Your task to perform on an android device: Do I have any events this weekend? Image 0: 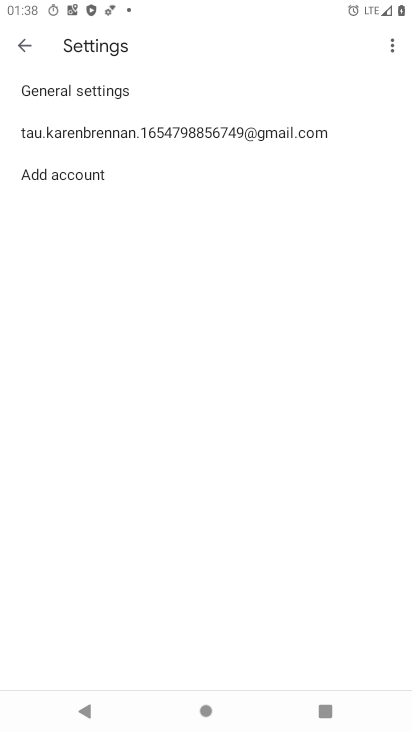
Step 0: press home button
Your task to perform on an android device: Do I have any events this weekend? Image 1: 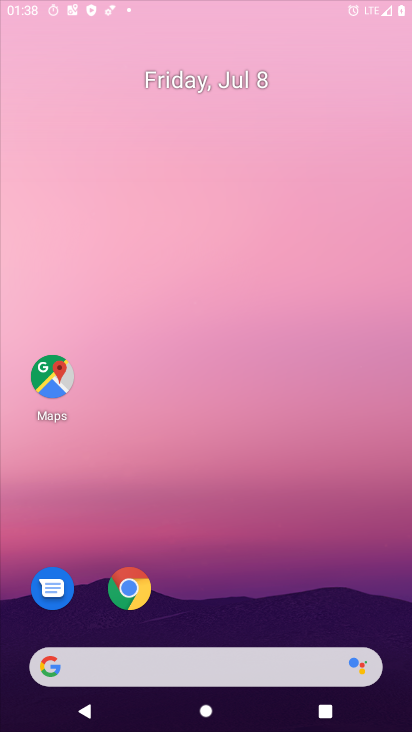
Step 1: drag from (218, 644) to (225, 320)
Your task to perform on an android device: Do I have any events this weekend? Image 2: 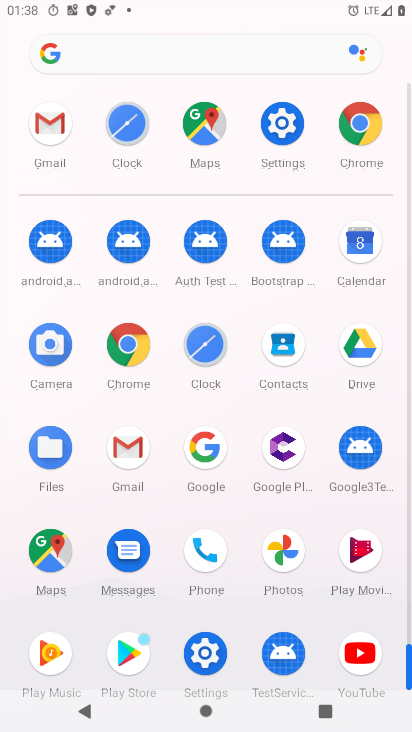
Step 2: click (371, 257)
Your task to perform on an android device: Do I have any events this weekend? Image 3: 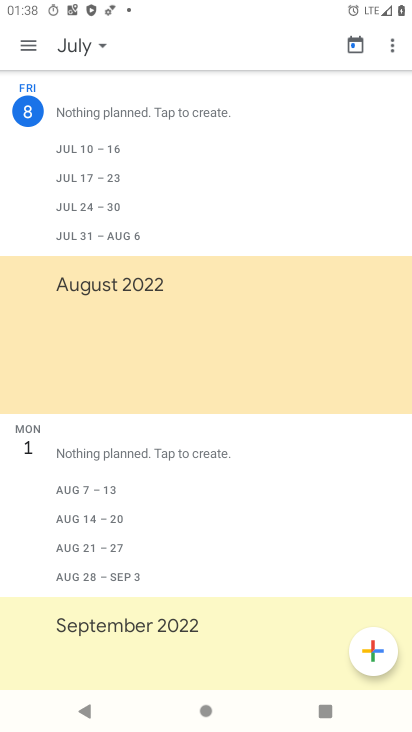
Step 3: click (86, 43)
Your task to perform on an android device: Do I have any events this weekend? Image 4: 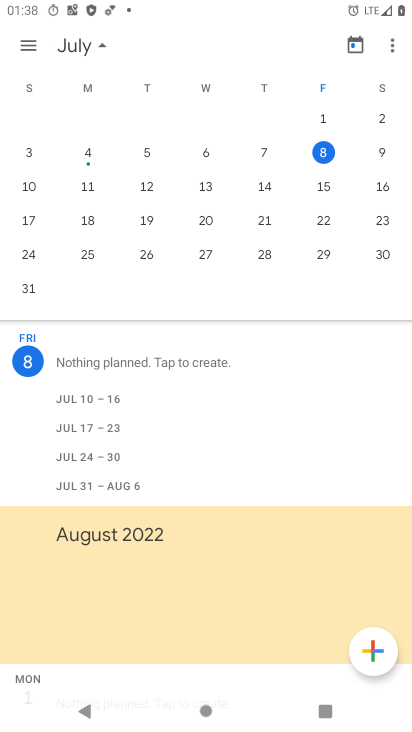
Step 4: click (383, 145)
Your task to perform on an android device: Do I have any events this weekend? Image 5: 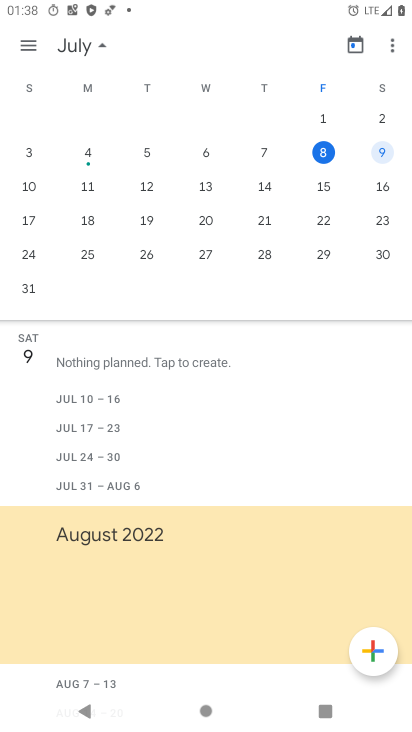
Step 5: task complete